Your task to perform on an android device: Open maps Image 0: 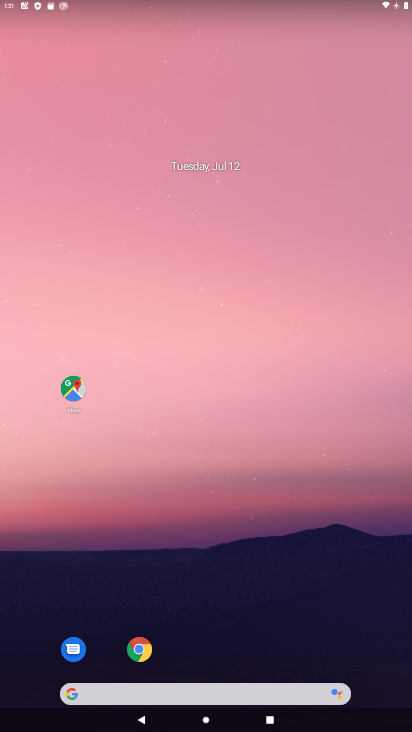
Step 0: drag from (284, 639) to (273, 464)
Your task to perform on an android device: Open maps Image 1: 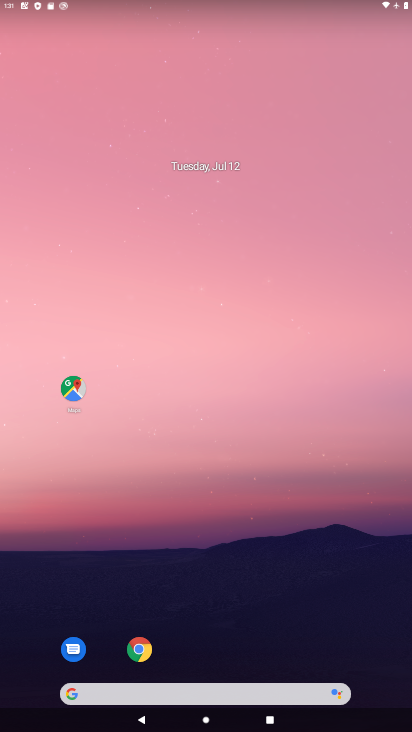
Step 1: click (81, 399)
Your task to perform on an android device: Open maps Image 2: 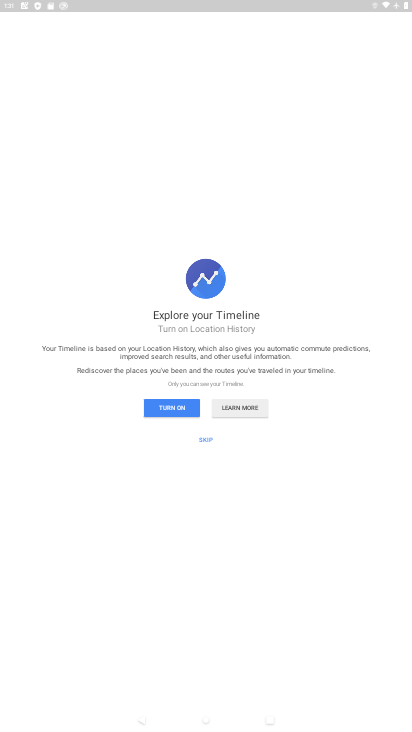
Step 2: click (211, 436)
Your task to perform on an android device: Open maps Image 3: 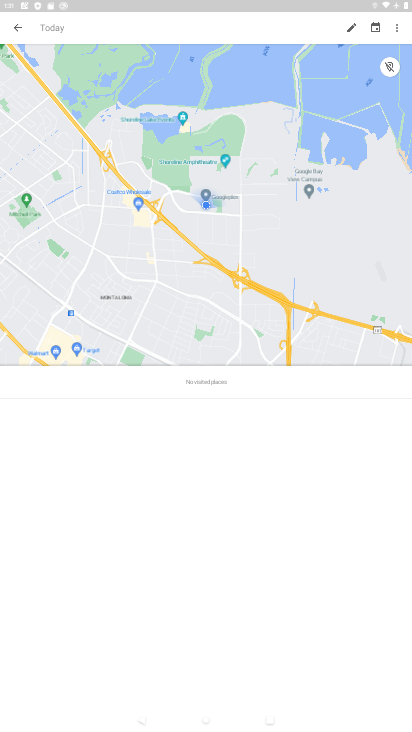
Step 3: task complete